Your task to perform on an android device: turn off data saver in the chrome app Image 0: 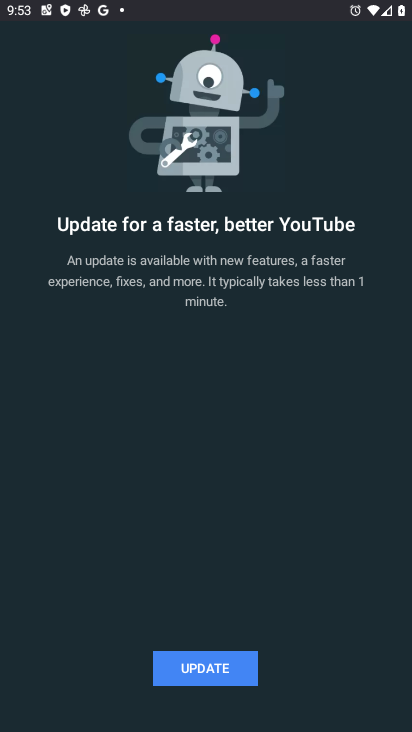
Step 0: press home button
Your task to perform on an android device: turn off data saver in the chrome app Image 1: 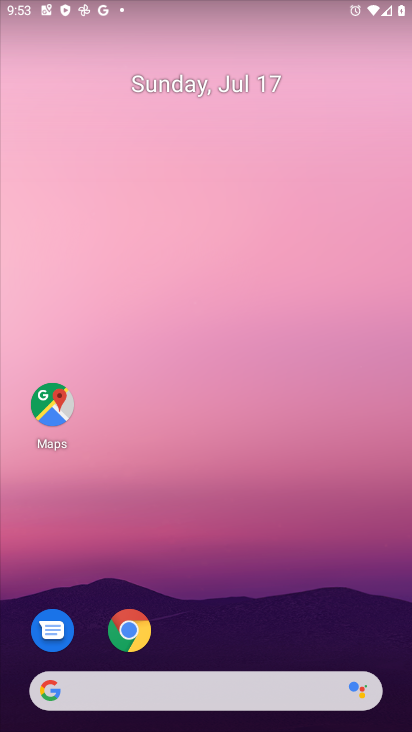
Step 1: click (131, 632)
Your task to perform on an android device: turn off data saver in the chrome app Image 2: 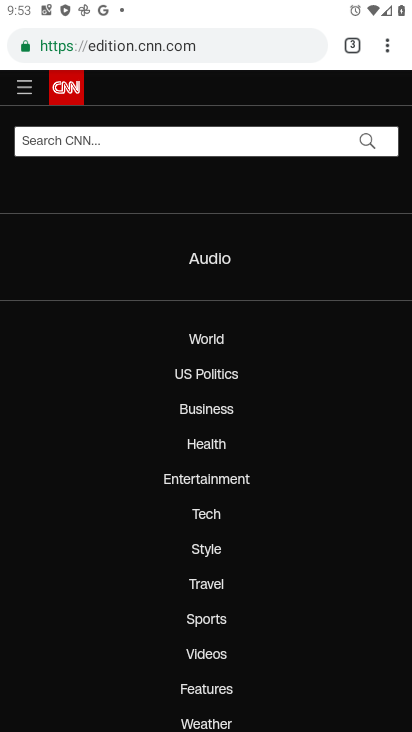
Step 2: click (386, 44)
Your task to perform on an android device: turn off data saver in the chrome app Image 3: 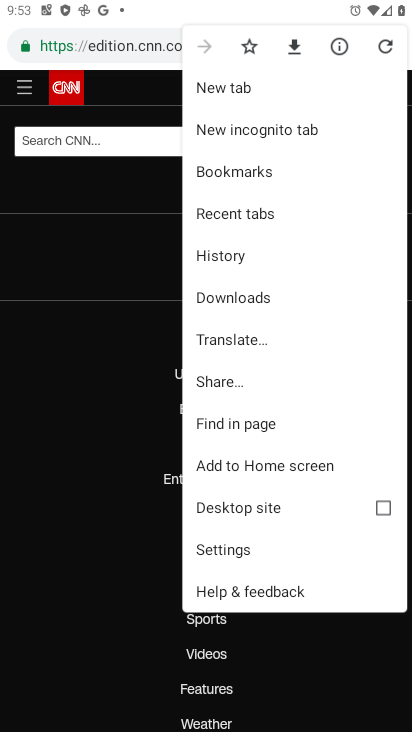
Step 3: click (208, 553)
Your task to perform on an android device: turn off data saver in the chrome app Image 4: 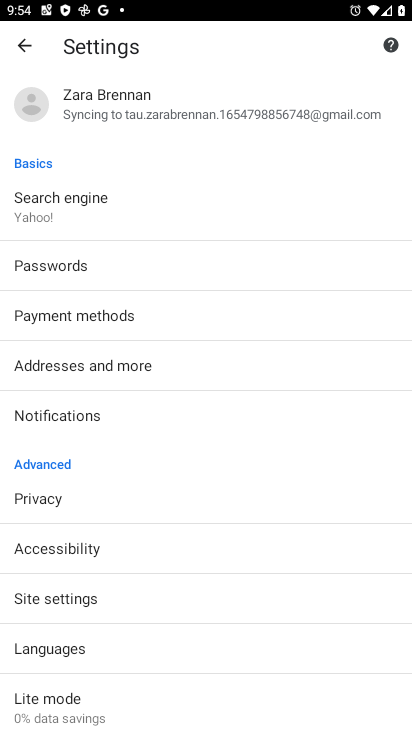
Step 4: click (27, 701)
Your task to perform on an android device: turn off data saver in the chrome app Image 5: 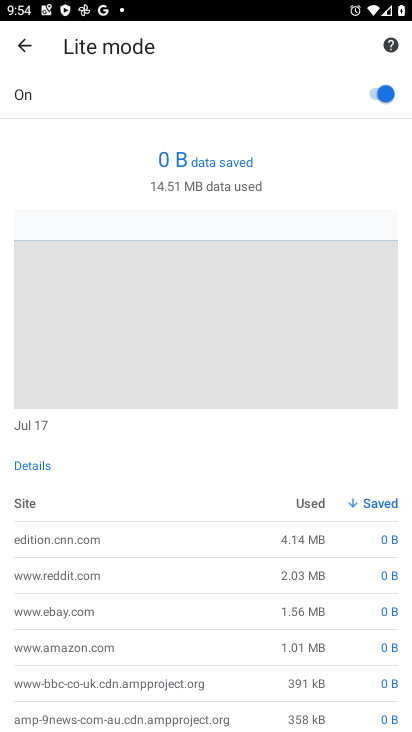
Step 5: click (373, 91)
Your task to perform on an android device: turn off data saver in the chrome app Image 6: 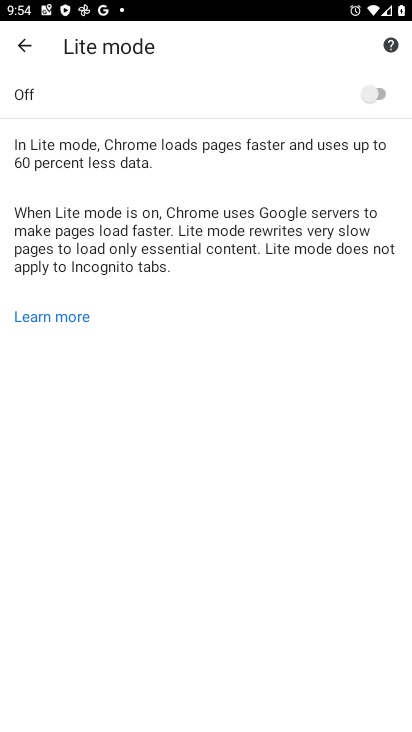
Step 6: task complete